Your task to perform on an android device: Play the last video I watched on Youtube Image 0: 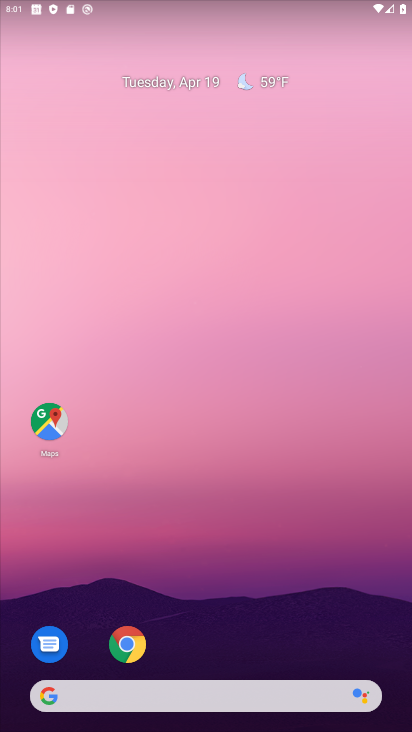
Step 0: drag from (264, 628) to (253, 188)
Your task to perform on an android device: Play the last video I watched on Youtube Image 1: 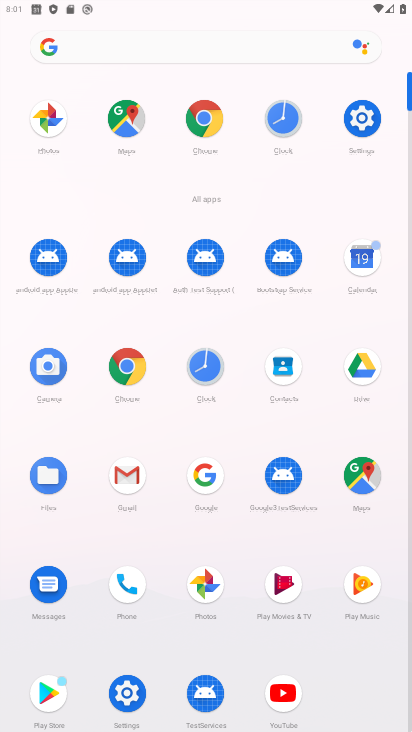
Step 1: click (295, 698)
Your task to perform on an android device: Play the last video I watched on Youtube Image 2: 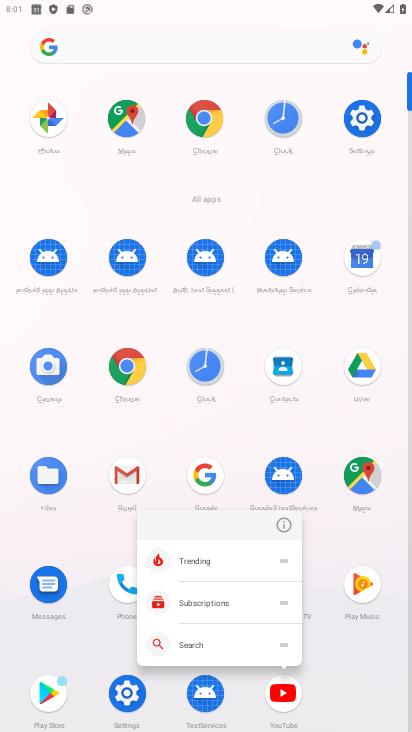
Step 2: click (282, 702)
Your task to perform on an android device: Play the last video I watched on Youtube Image 3: 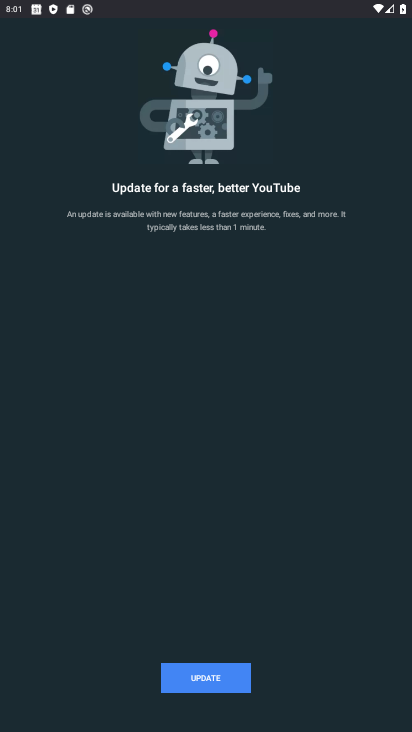
Step 3: click (182, 680)
Your task to perform on an android device: Play the last video I watched on Youtube Image 4: 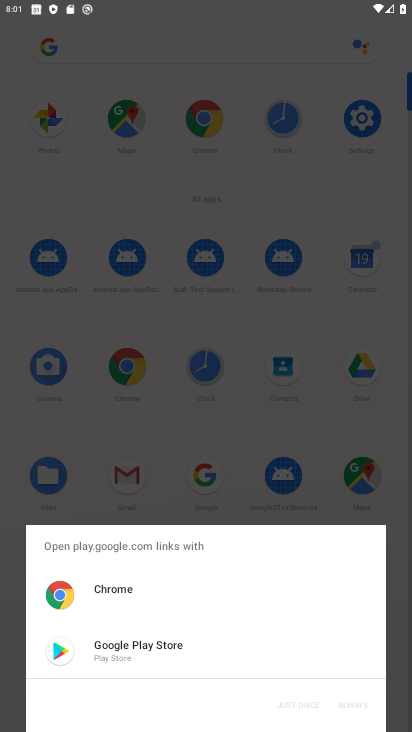
Step 4: click (135, 653)
Your task to perform on an android device: Play the last video I watched on Youtube Image 5: 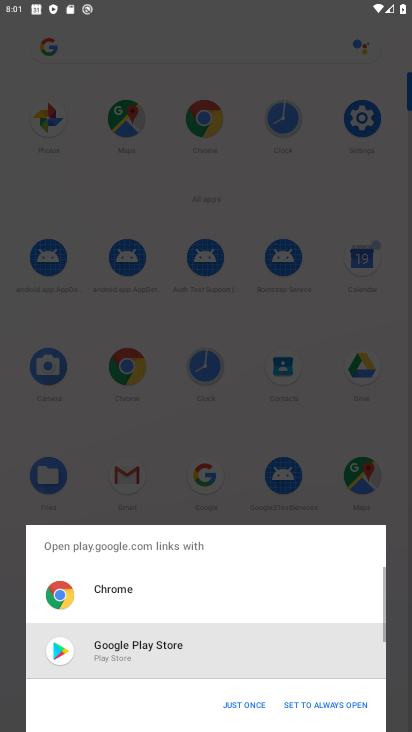
Step 5: click (237, 705)
Your task to perform on an android device: Play the last video I watched on Youtube Image 6: 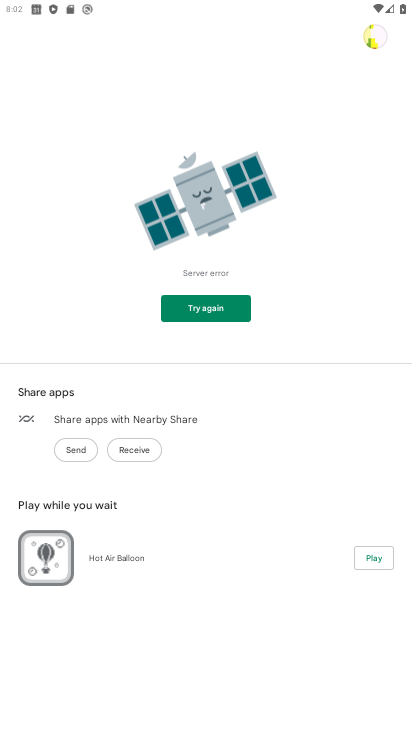
Step 6: task complete